Your task to perform on an android device: Turn on the flashlight Image 0: 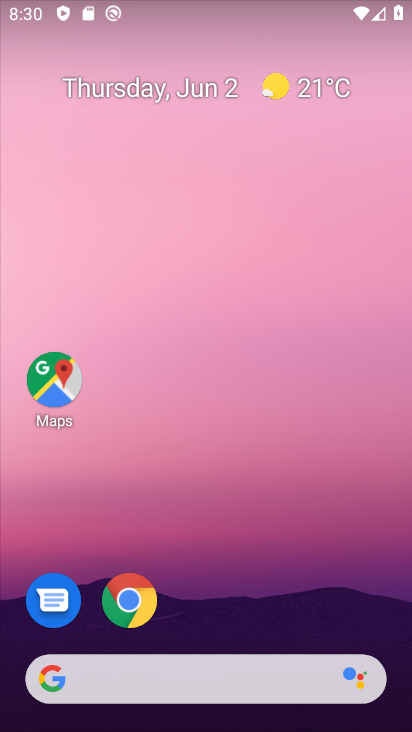
Step 0: drag from (200, 629) to (163, 225)
Your task to perform on an android device: Turn on the flashlight Image 1: 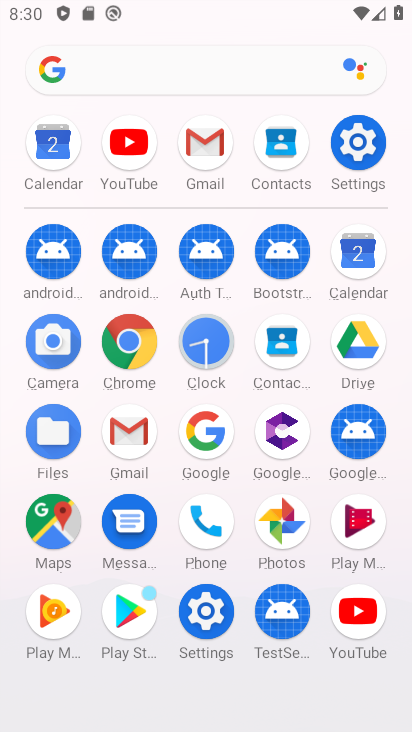
Step 1: click (347, 150)
Your task to perform on an android device: Turn on the flashlight Image 2: 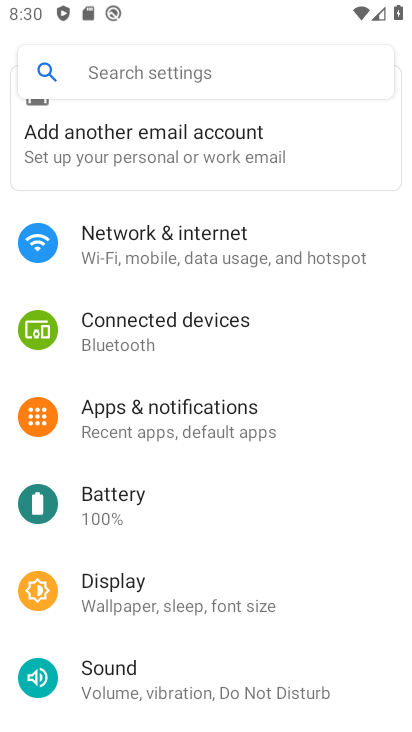
Step 2: task complete